Your task to perform on an android device: install app "Reddit" Image 0: 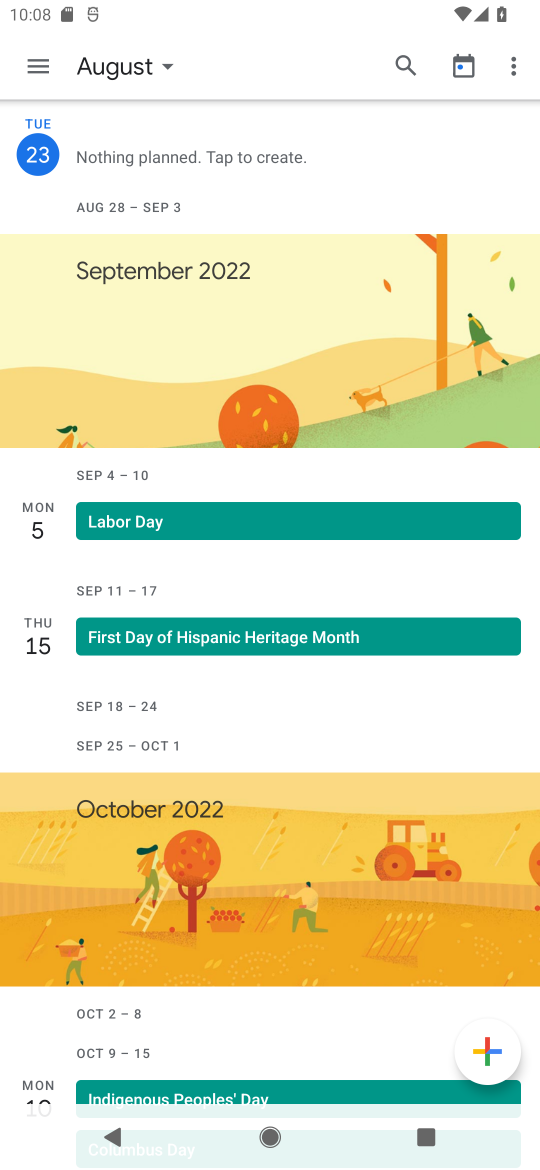
Step 0: press back button
Your task to perform on an android device: install app "Reddit" Image 1: 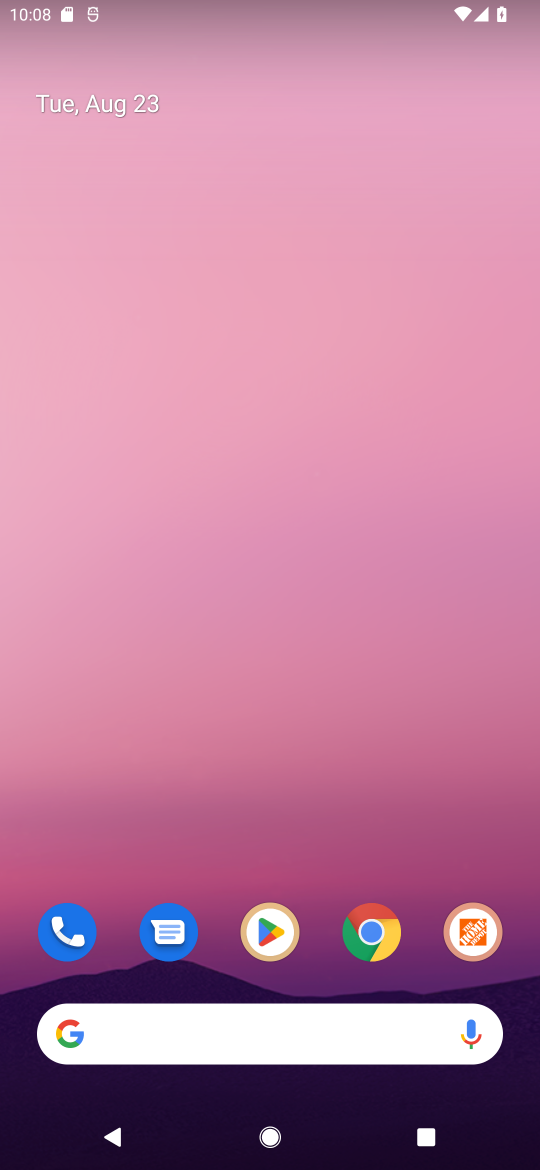
Step 1: click (260, 935)
Your task to perform on an android device: install app "Reddit" Image 2: 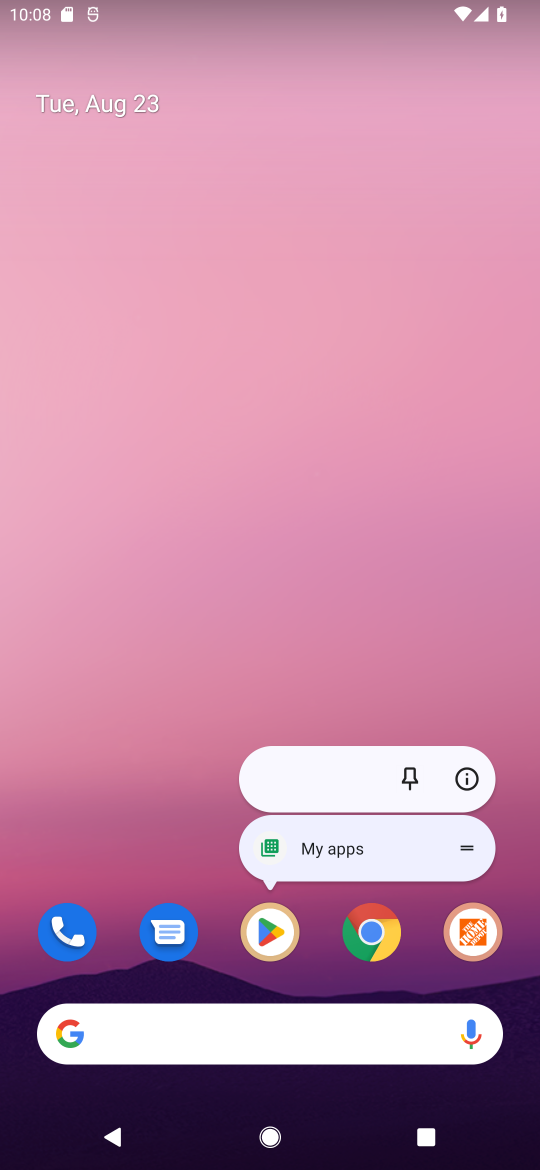
Step 2: click (272, 943)
Your task to perform on an android device: install app "Reddit" Image 3: 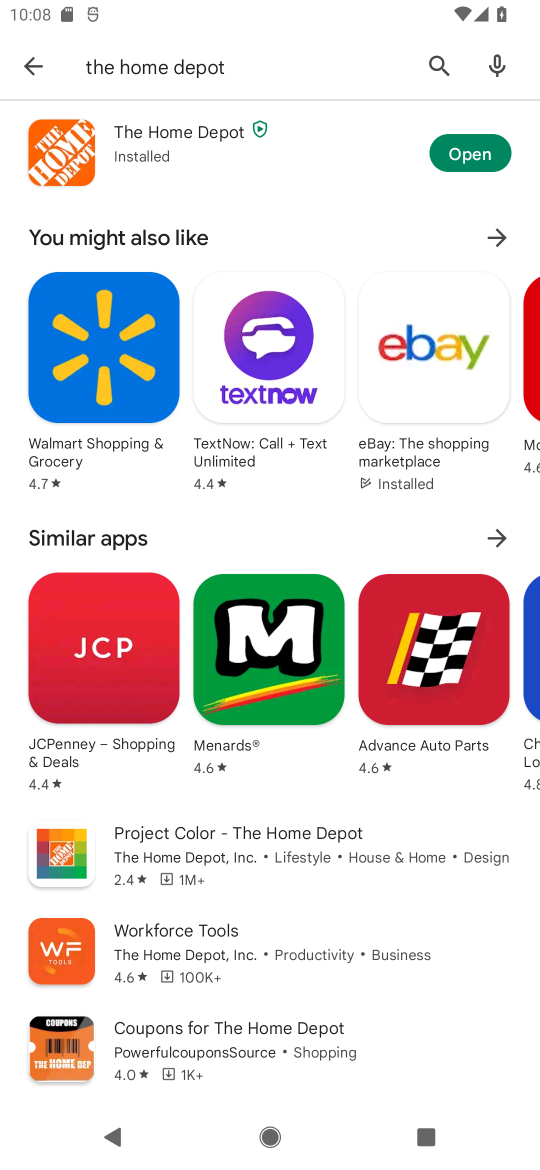
Step 3: click (449, 47)
Your task to perform on an android device: install app "Reddit" Image 4: 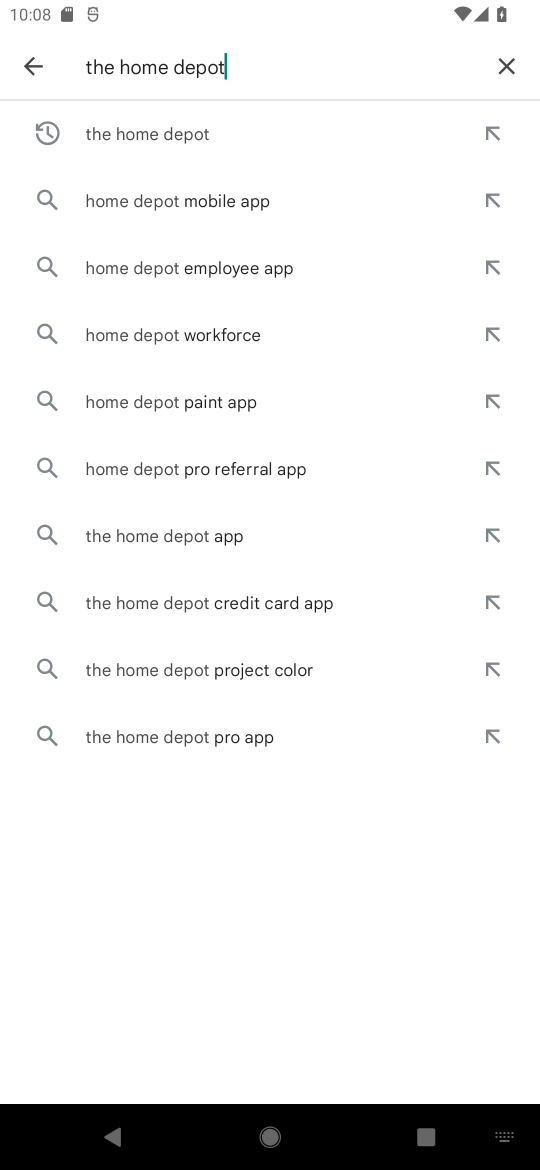
Step 4: click (500, 71)
Your task to perform on an android device: install app "Reddit" Image 5: 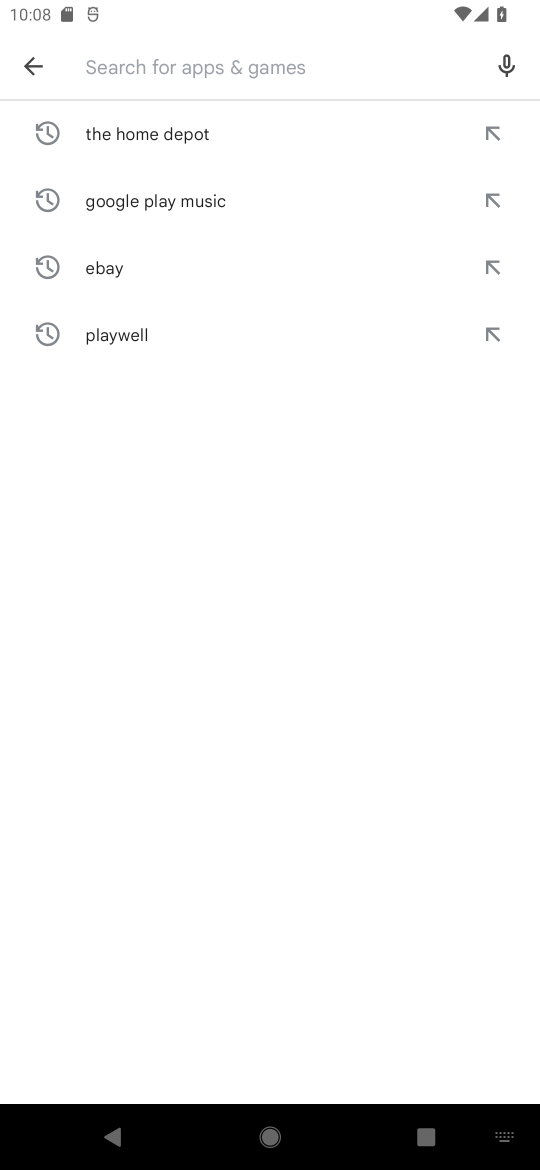
Step 5: type "reddit"
Your task to perform on an android device: install app "Reddit" Image 6: 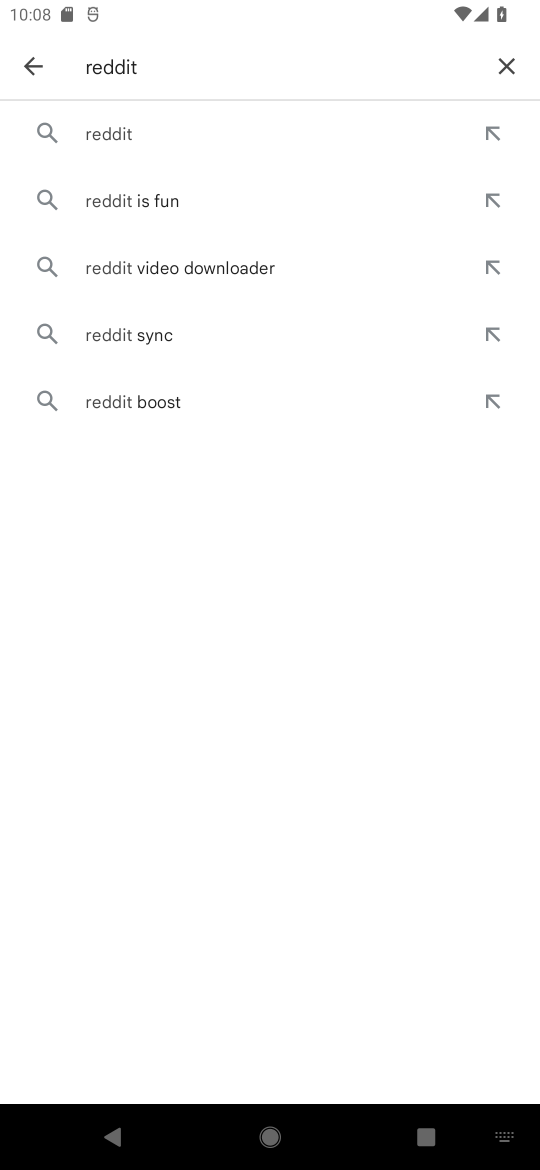
Step 6: click (128, 123)
Your task to perform on an android device: install app "Reddit" Image 7: 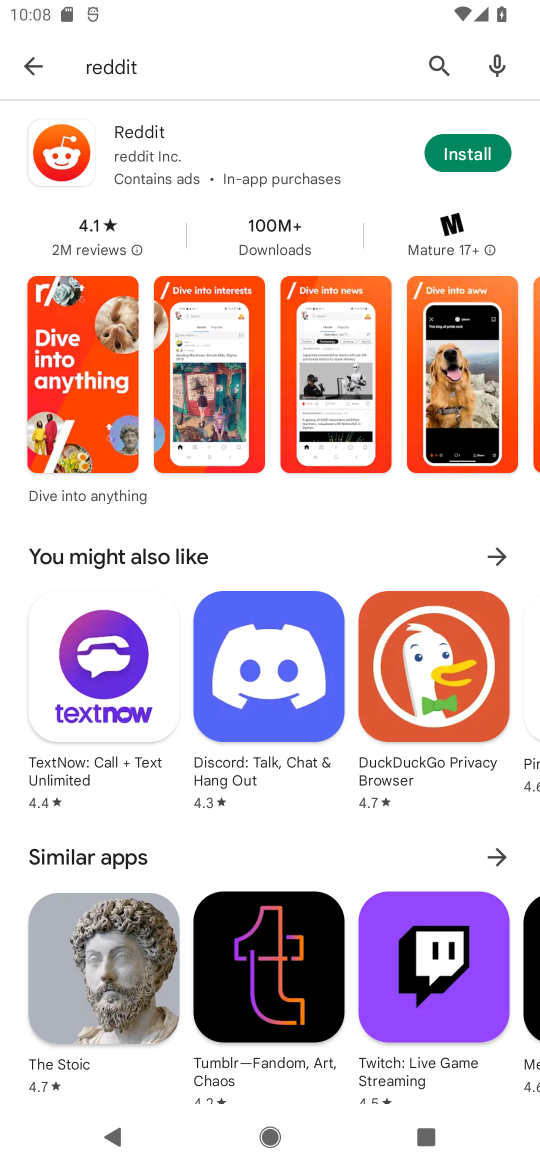
Step 7: click (473, 147)
Your task to perform on an android device: install app "Reddit" Image 8: 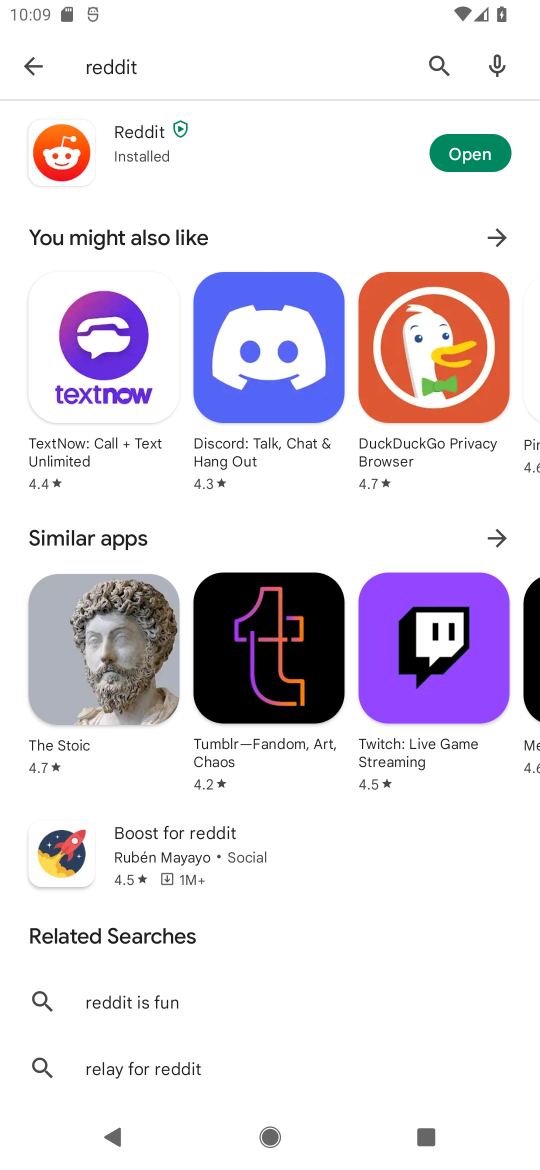
Step 8: task complete